Your task to perform on an android device: Open maps Image 0: 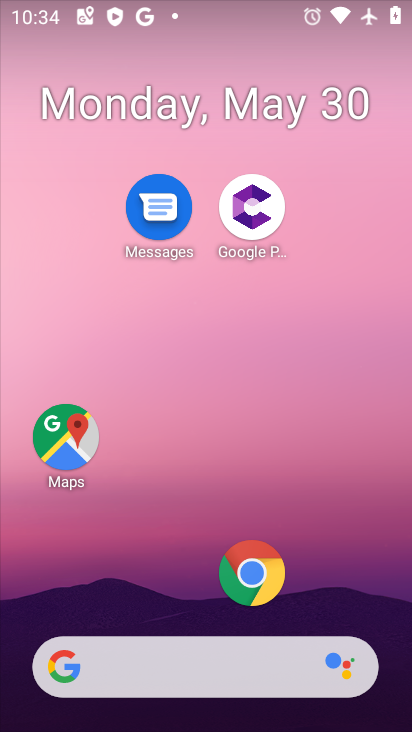
Step 0: click (76, 447)
Your task to perform on an android device: Open maps Image 1: 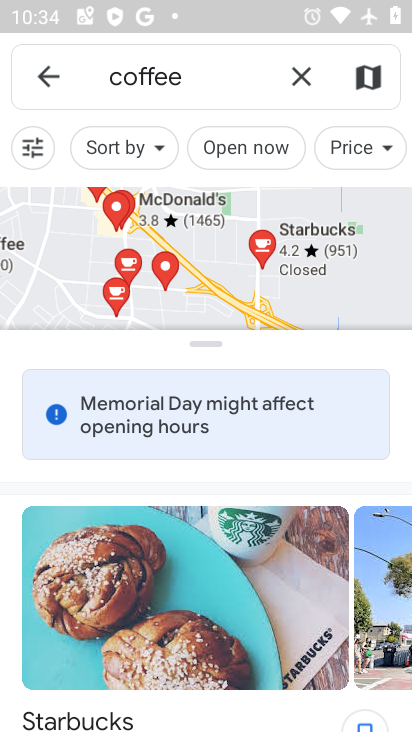
Step 1: task complete